Your task to perform on an android device: What's the weather going to be tomorrow? Image 0: 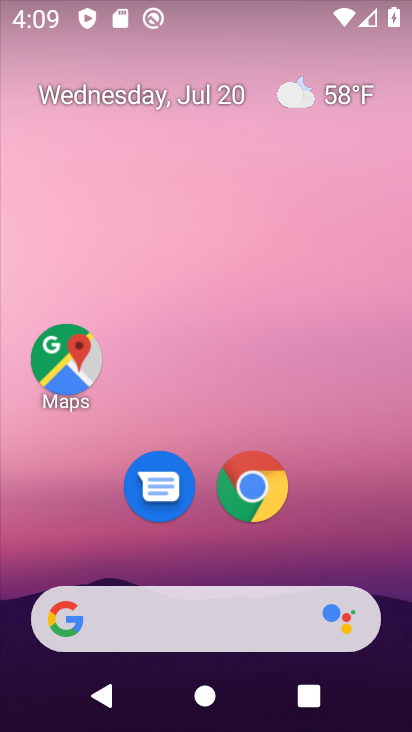
Step 0: click (160, 624)
Your task to perform on an android device: What's the weather going to be tomorrow? Image 1: 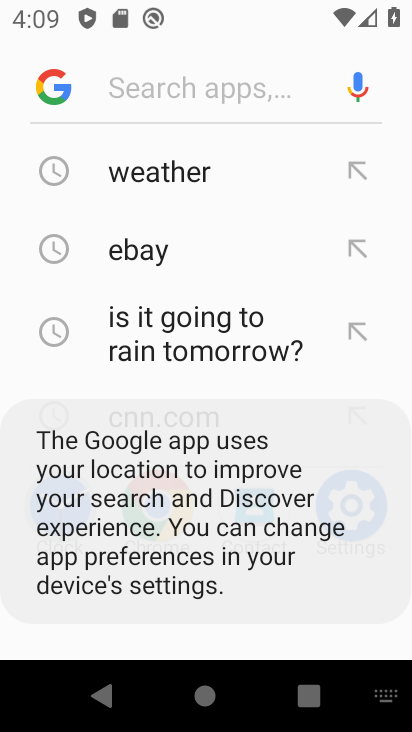
Step 1: click (164, 178)
Your task to perform on an android device: What's the weather going to be tomorrow? Image 2: 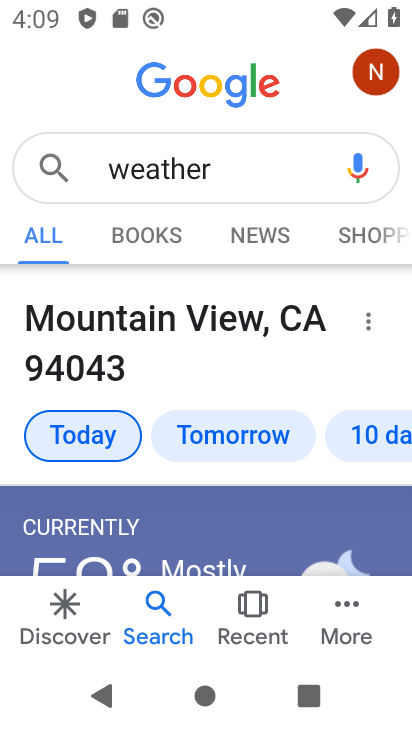
Step 2: click (211, 434)
Your task to perform on an android device: What's the weather going to be tomorrow? Image 3: 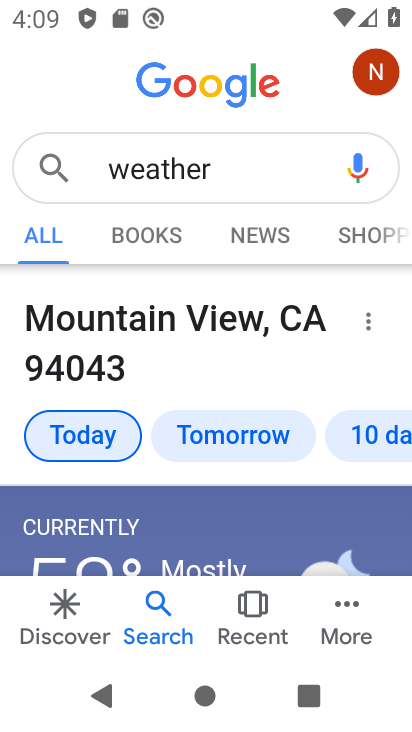
Step 3: click (221, 436)
Your task to perform on an android device: What's the weather going to be tomorrow? Image 4: 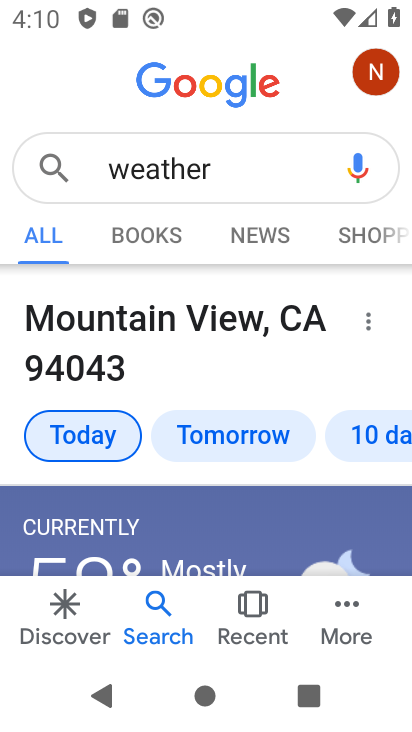
Step 4: task complete